Your task to perform on an android device: turn off smart reply in the gmail app Image 0: 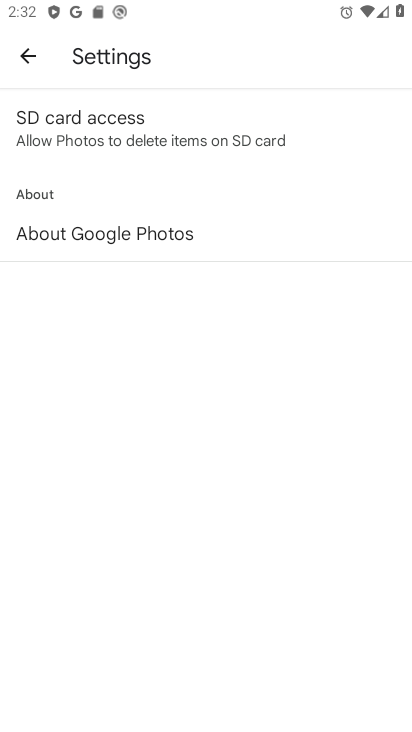
Step 0: press home button
Your task to perform on an android device: turn off smart reply in the gmail app Image 1: 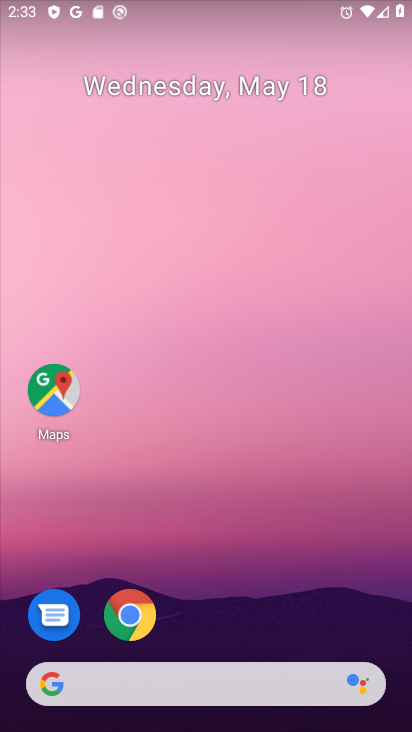
Step 1: drag from (189, 634) to (232, 287)
Your task to perform on an android device: turn off smart reply in the gmail app Image 2: 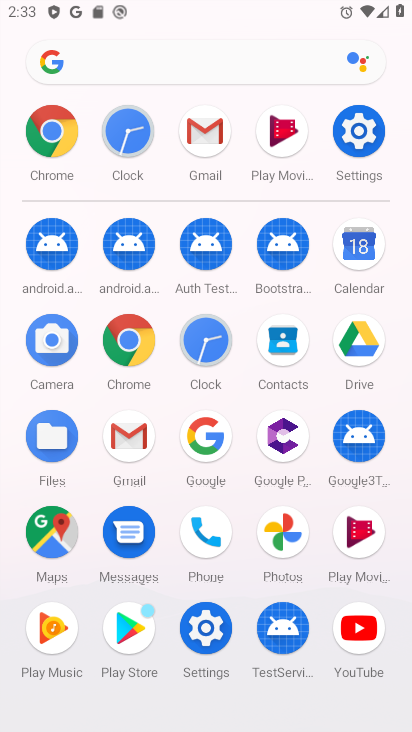
Step 2: click (118, 443)
Your task to perform on an android device: turn off smart reply in the gmail app Image 3: 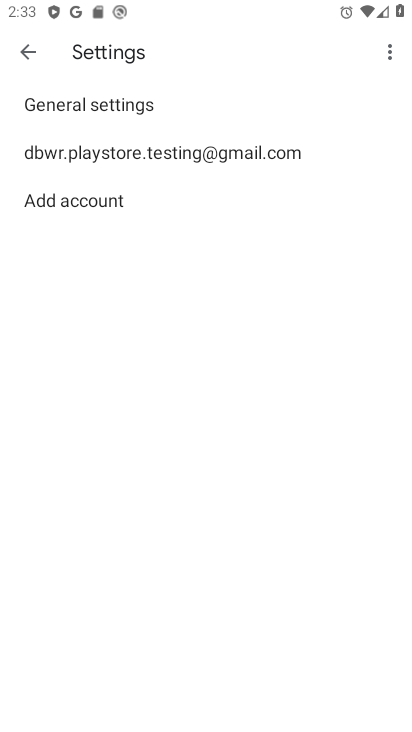
Step 3: click (32, 57)
Your task to perform on an android device: turn off smart reply in the gmail app Image 4: 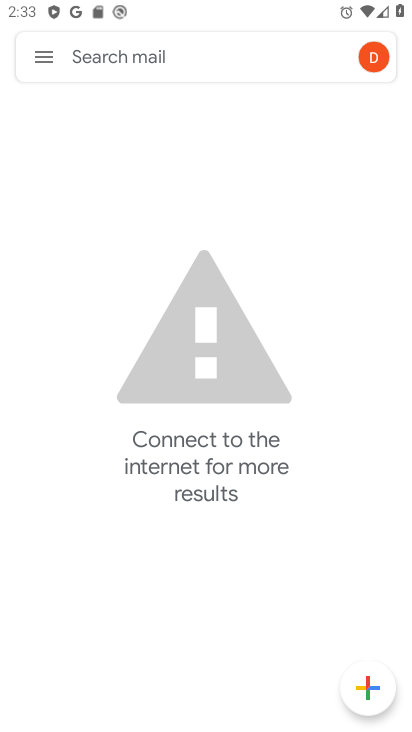
Step 4: click (44, 61)
Your task to perform on an android device: turn off smart reply in the gmail app Image 5: 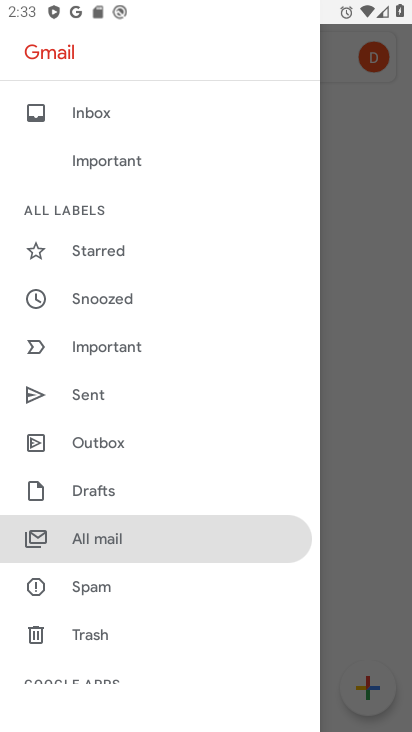
Step 5: drag from (163, 610) to (220, 272)
Your task to perform on an android device: turn off smart reply in the gmail app Image 6: 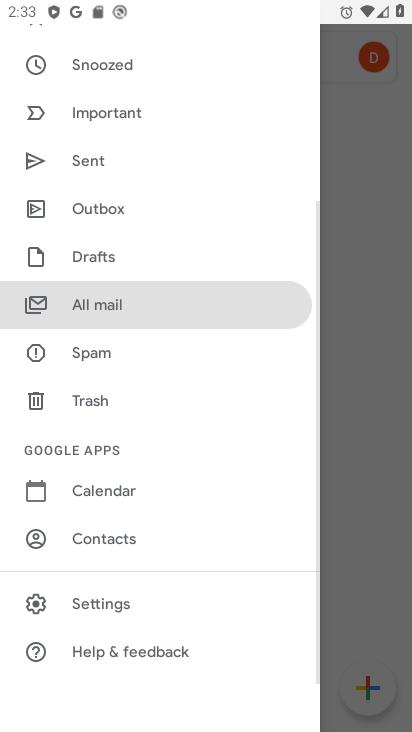
Step 6: click (106, 597)
Your task to perform on an android device: turn off smart reply in the gmail app Image 7: 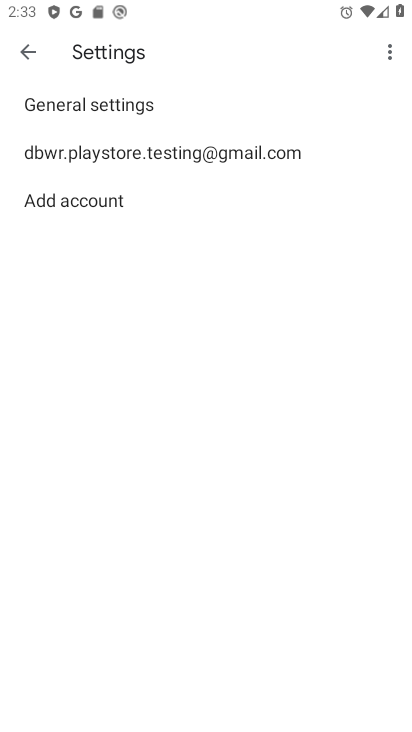
Step 7: click (124, 149)
Your task to perform on an android device: turn off smart reply in the gmail app Image 8: 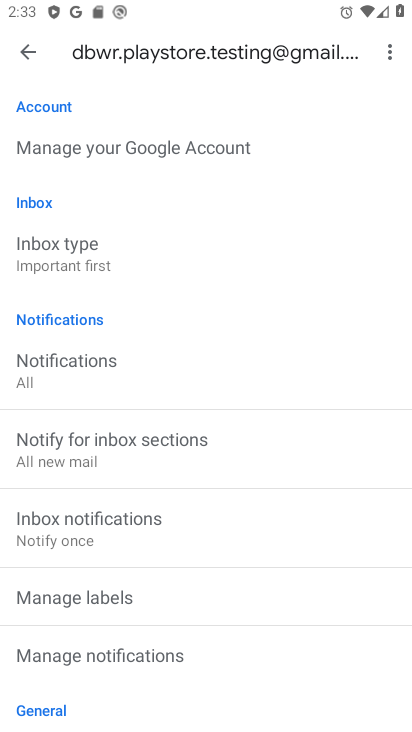
Step 8: drag from (84, 682) to (149, 271)
Your task to perform on an android device: turn off smart reply in the gmail app Image 9: 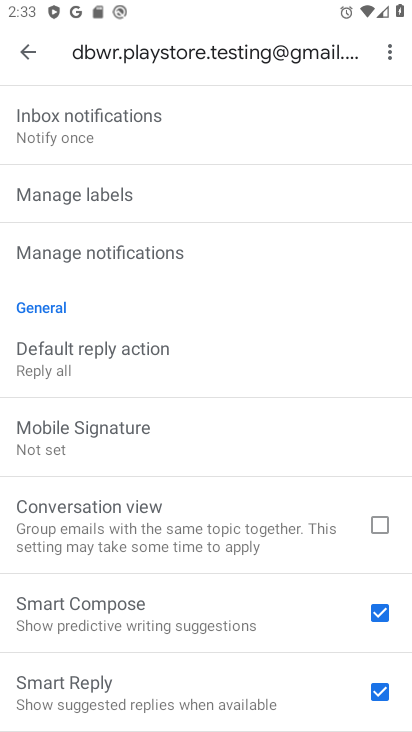
Step 9: click (381, 690)
Your task to perform on an android device: turn off smart reply in the gmail app Image 10: 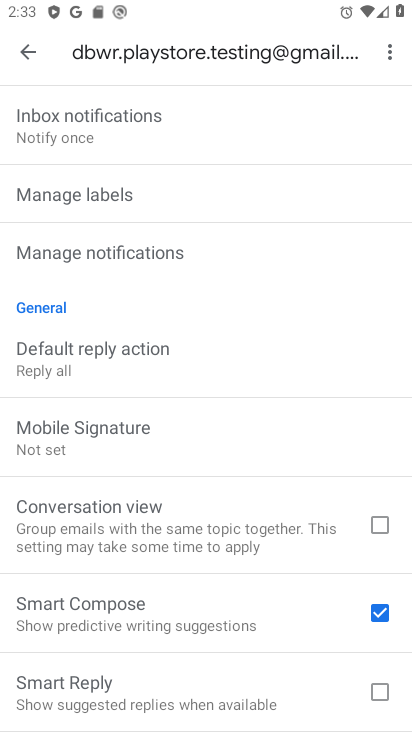
Step 10: task complete